Your task to perform on an android device: Open battery settings Image 0: 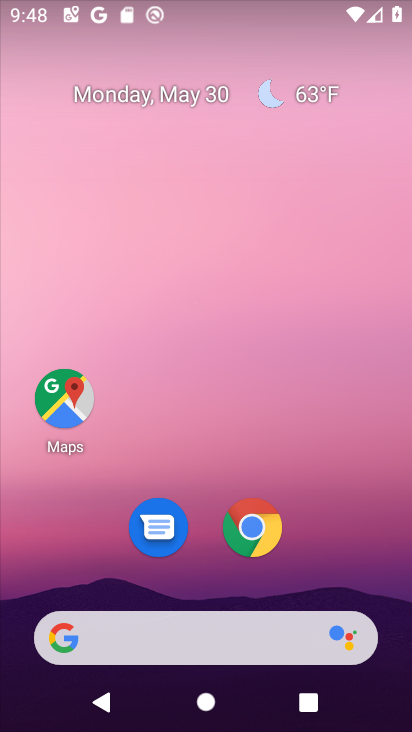
Step 0: click (308, 261)
Your task to perform on an android device: Open battery settings Image 1: 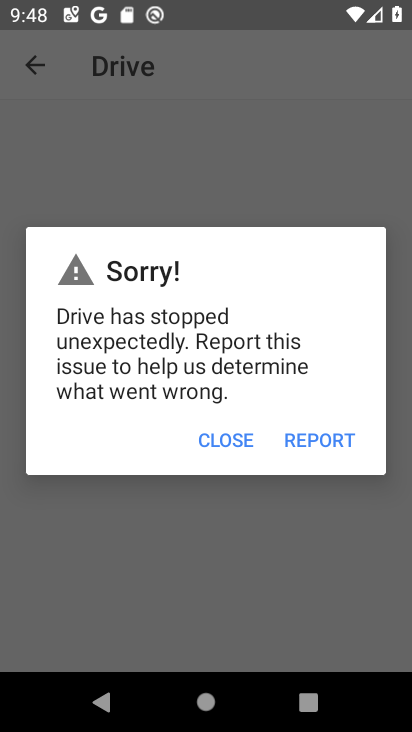
Step 1: press home button
Your task to perform on an android device: Open battery settings Image 2: 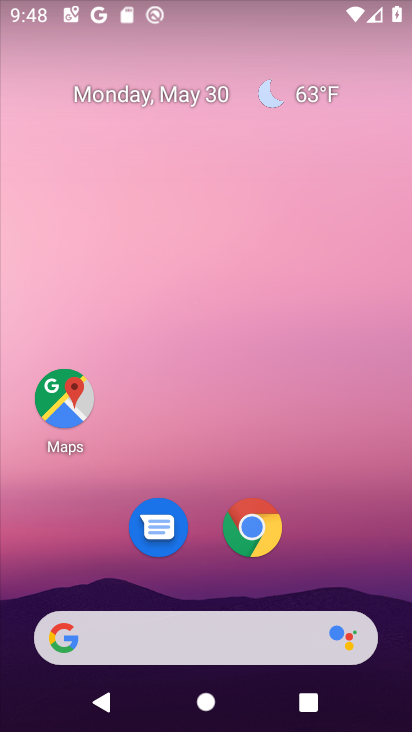
Step 2: drag from (264, 588) to (273, 270)
Your task to perform on an android device: Open battery settings Image 3: 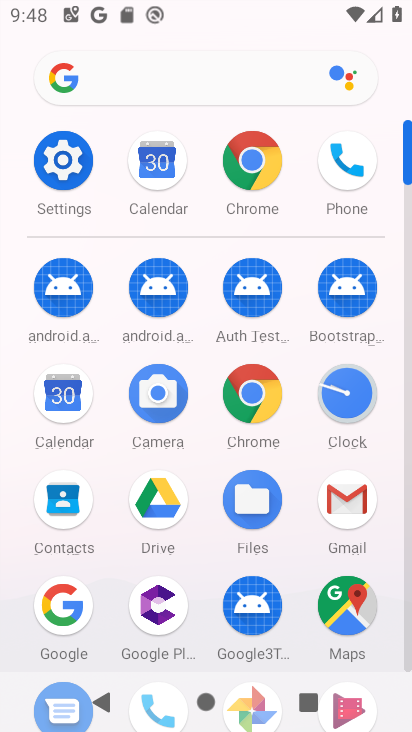
Step 3: click (57, 150)
Your task to perform on an android device: Open battery settings Image 4: 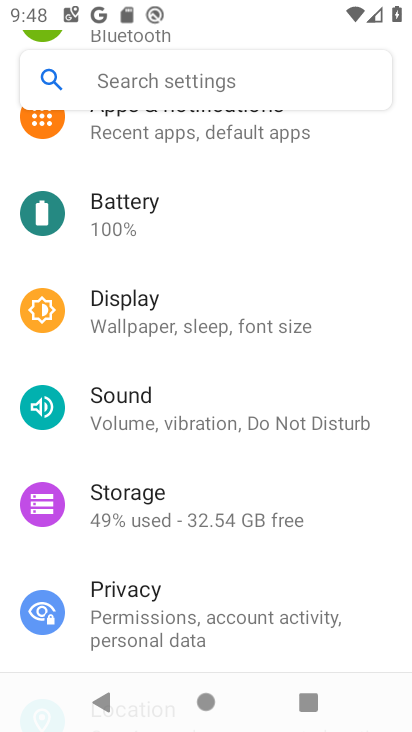
Step 4: click (183, 206)
Your task to perform on an android device: Open battery settings Image 5: 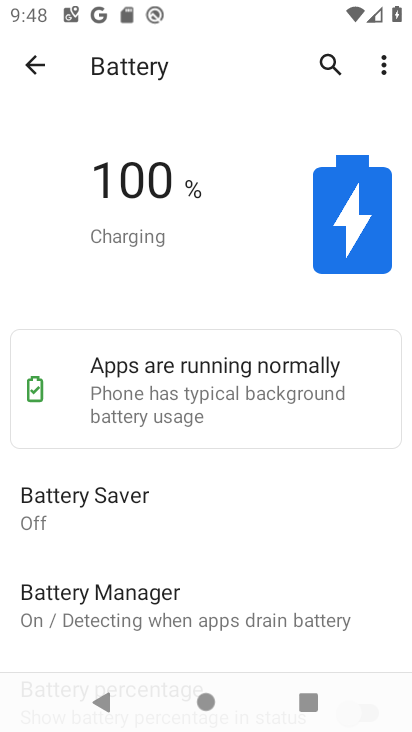
Step 5: task complete